Your task to perform on an android device: create a new album in the google photos Image 0: 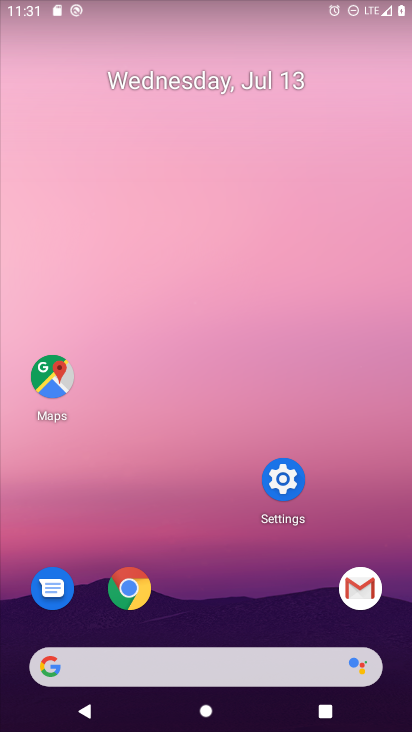
Step 0: press home button
Your task to perform on an android device: create a new album in the google photos Image 1: 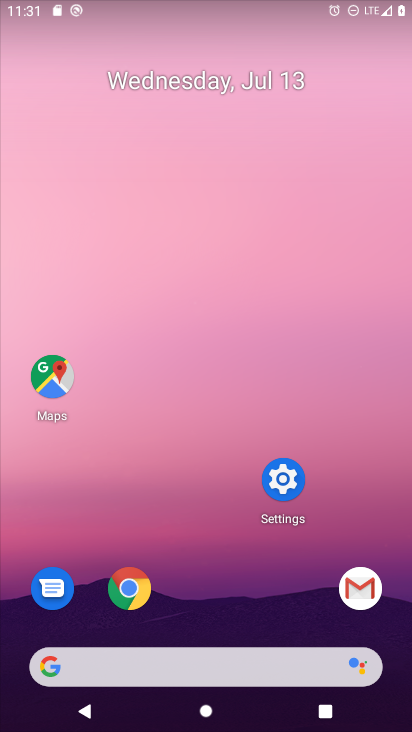
Step 1: drag from (268, 648) to (122, 111)
Your task to perform on an android device: create a new album in the google photos Image 2: 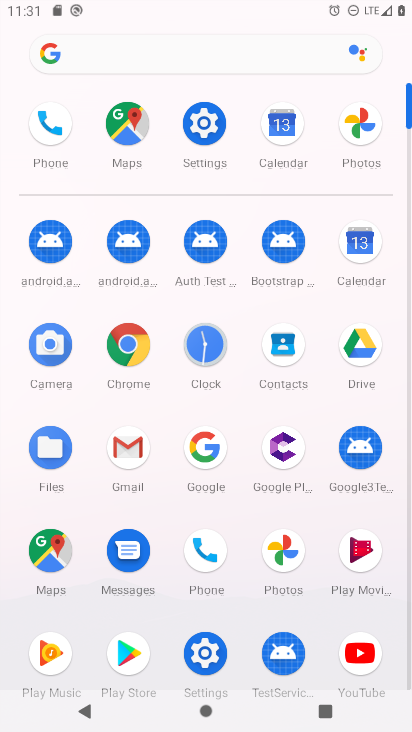
Step 2: click (287, 548)
Your task to perform on an android device: create a new album in the google photos Image 3: 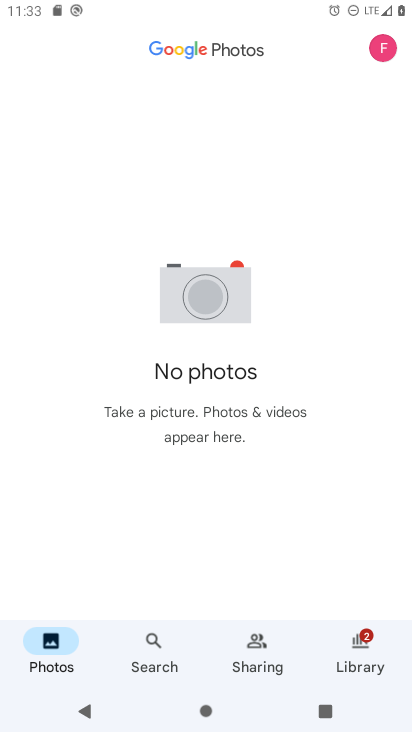
Step 3: task complete